Your task to perform on an android device: Search for logitech g502 on target.com, select the first entry, and add it to the cart. Image 0: 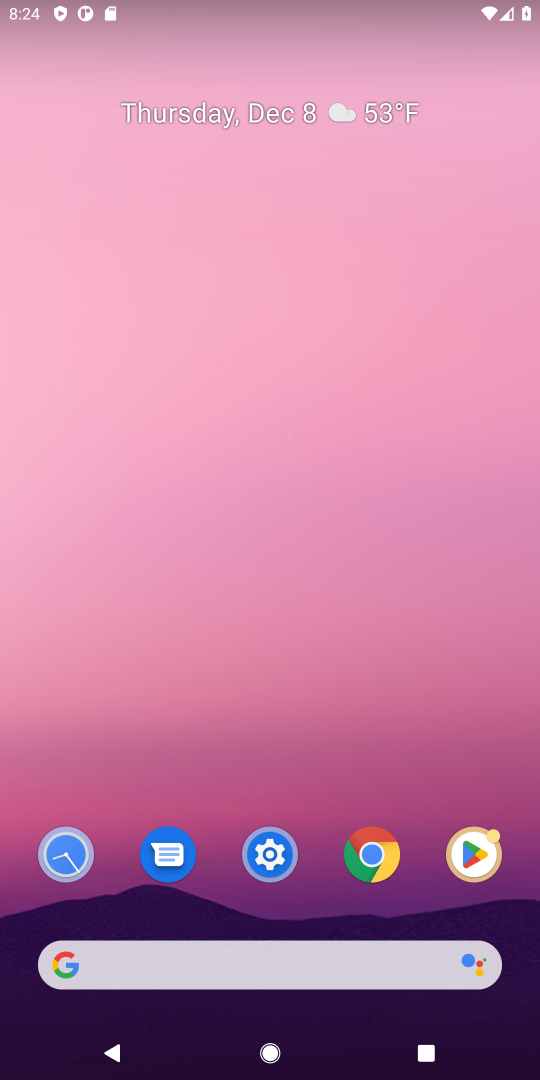
Step 0: press home button
Your task to perform on an android device: Search for logitech g502 on target.com, select the first entry, and add it to the cart. Image 1: 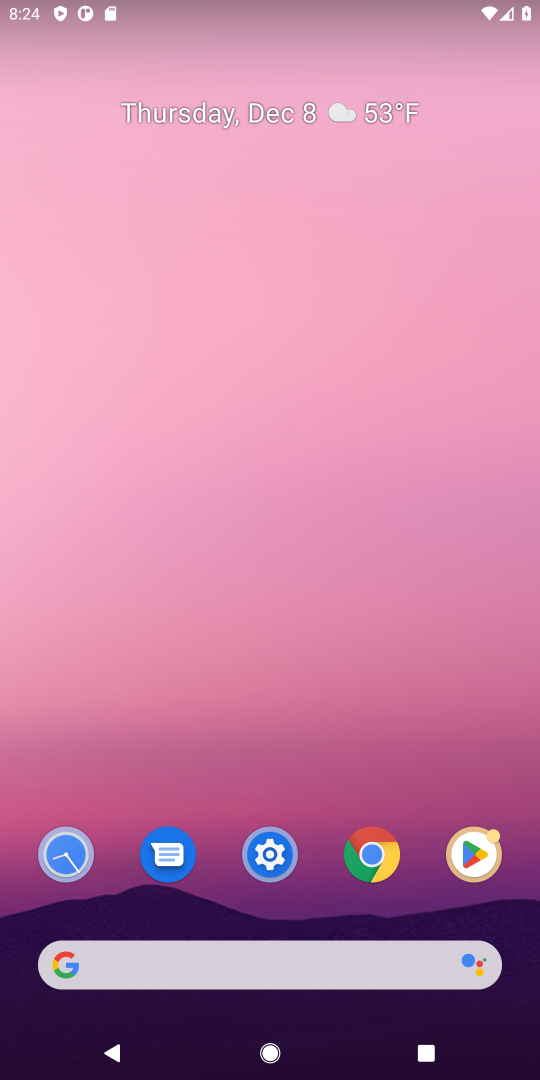
Step 1: click (95, 962)
Your task to perform on an android device: Search for logitech g502 on target.com, select the first entry, and add it to the cart. Image 2: 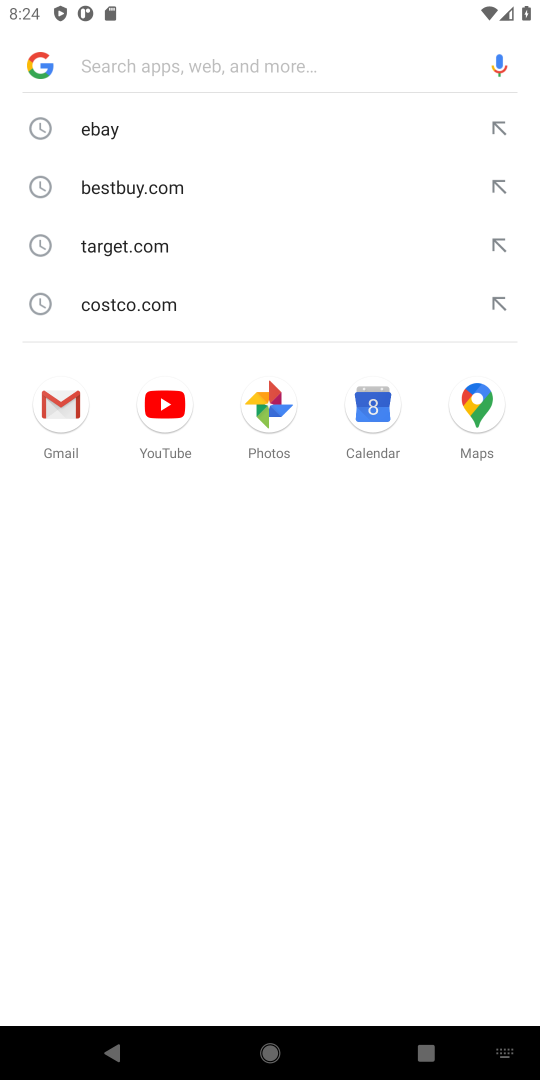
Step 2: press enter
Your task to perform on an android device: Search for logitech g502 on target.com, select the first entry, and add it to the cart. Image 3: 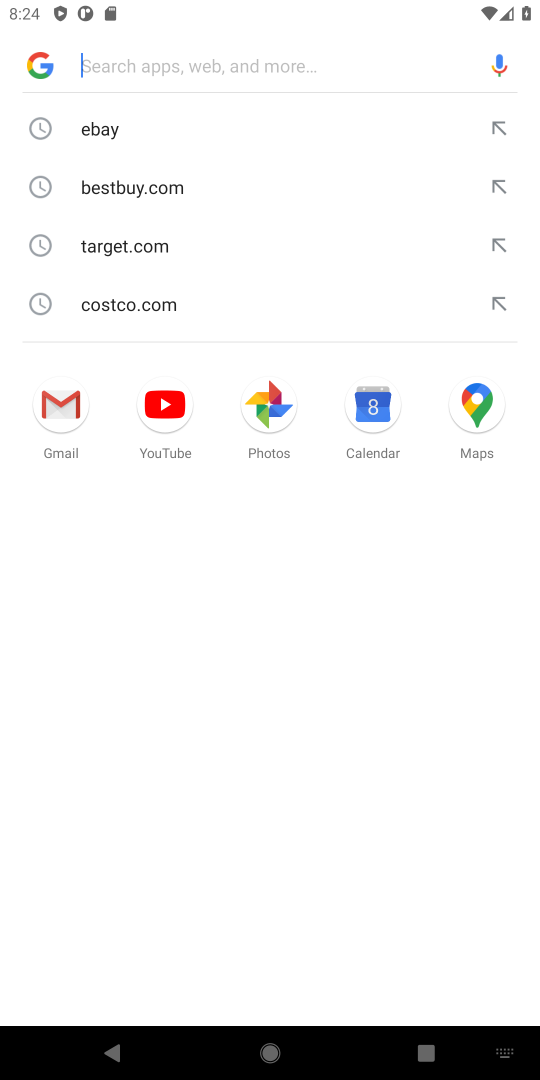
Step 3: type "target.com"
Your task to perform on an android device: Search for logitech g502 on target.com, select the first entry, and add it to the cart. Image 4: 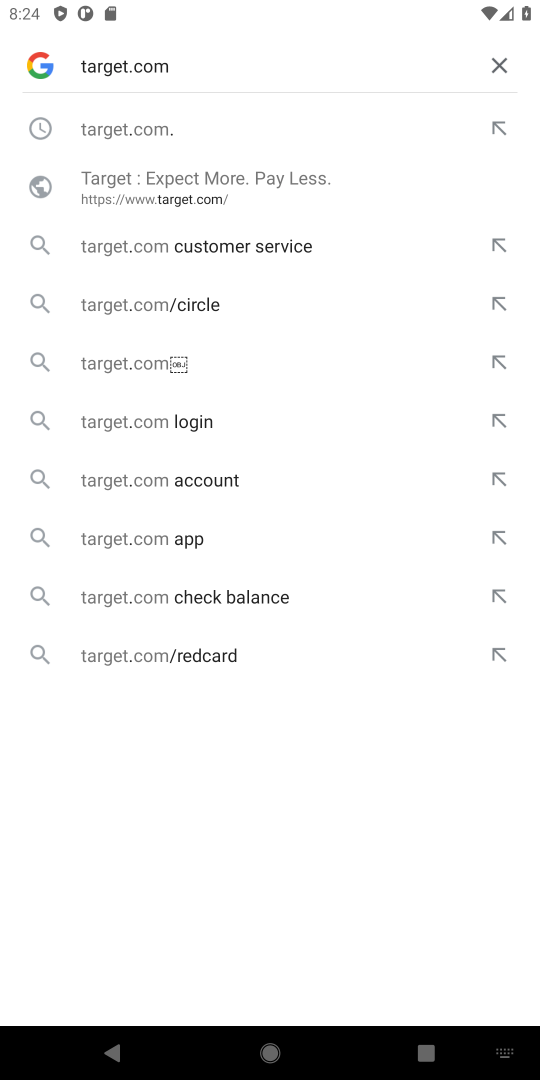
Step 4: press enter
Your task to perform on an android device: Search for logitech g502 on target.com, select the first entry, and add it to the cart. Image 5: 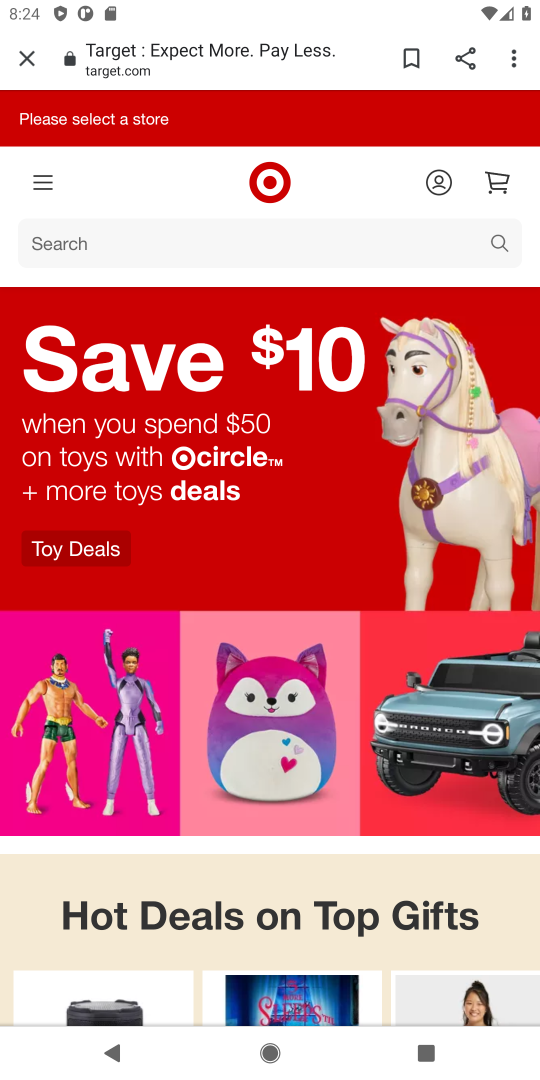
Step 5: click (45, 235)
Your task to perform on an android device: Search for logitech g502 on target.com, select the first entry, and add it to the cart. Image 6: 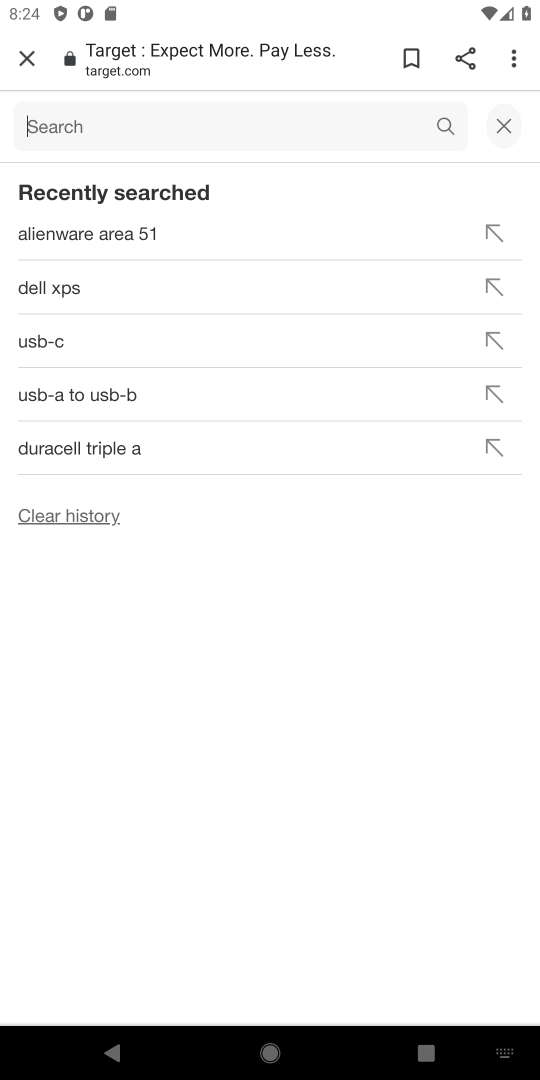
Step 6: type "logitech g502"
Your task to perform on an android device: Search for logitech g502 on target.com, select the first entry, and add it to the cart. Image 7: 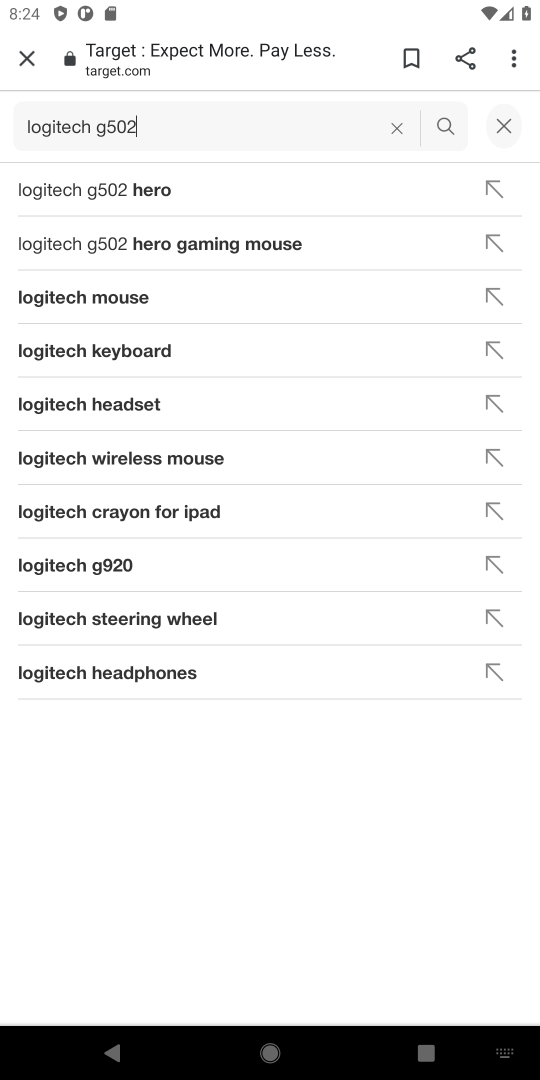
Step 7: press enter
Your task to perform on an android device: Search for logitech g502 on target.com, select the first entry, and add it to the cart. Image 8: 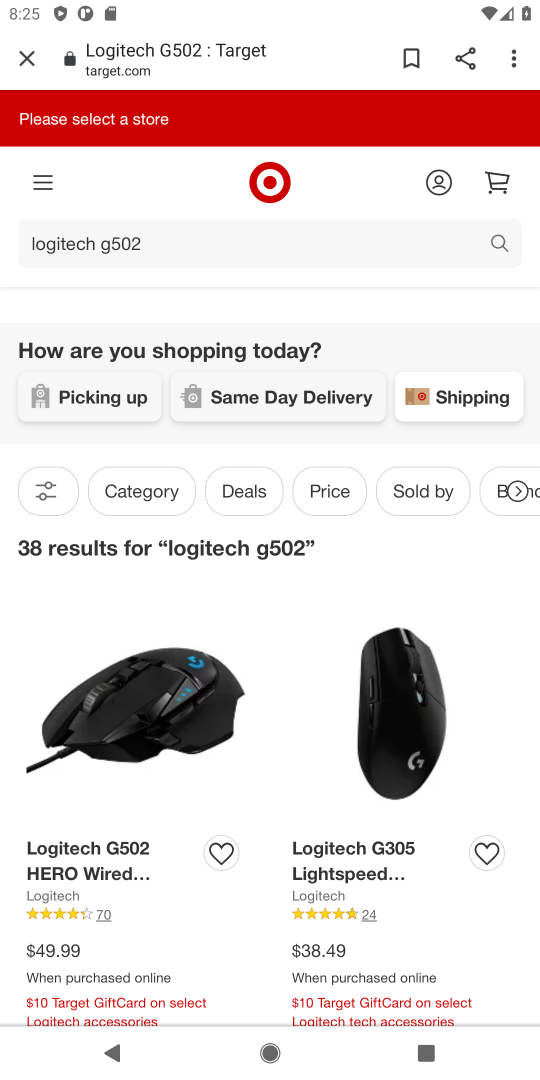
Step 8: click (96, 872)
Your task to perform on an android device: Search for logitech g502 on target.com, select the first entry, and add it to the cart. Image 9: 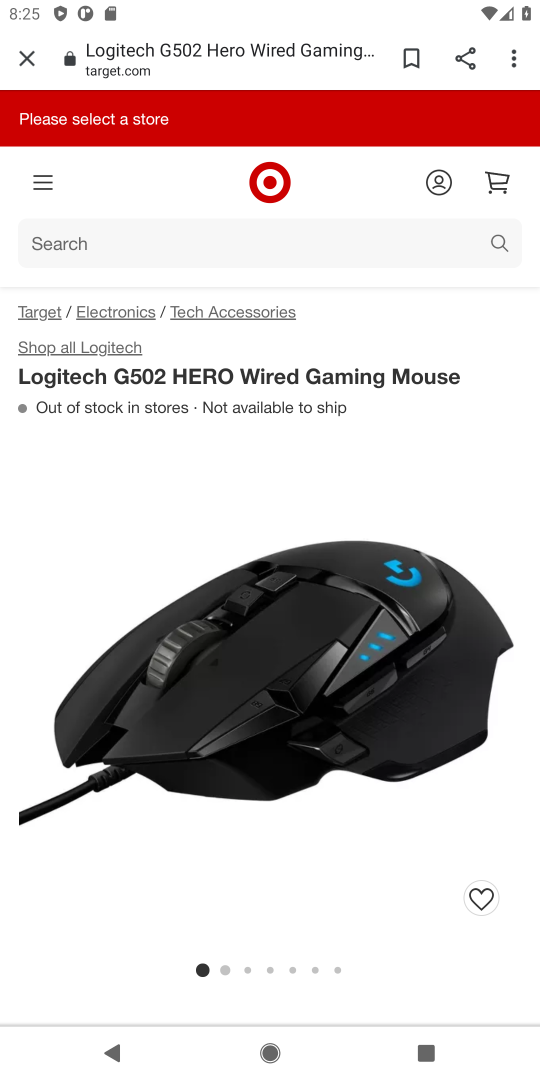
Step 9: drag from (320, 867) to (311, 392)
Your task to perform on an android device: Search for logitech g502 on target.com, select the first entry, and add it to the cart. Image 10: 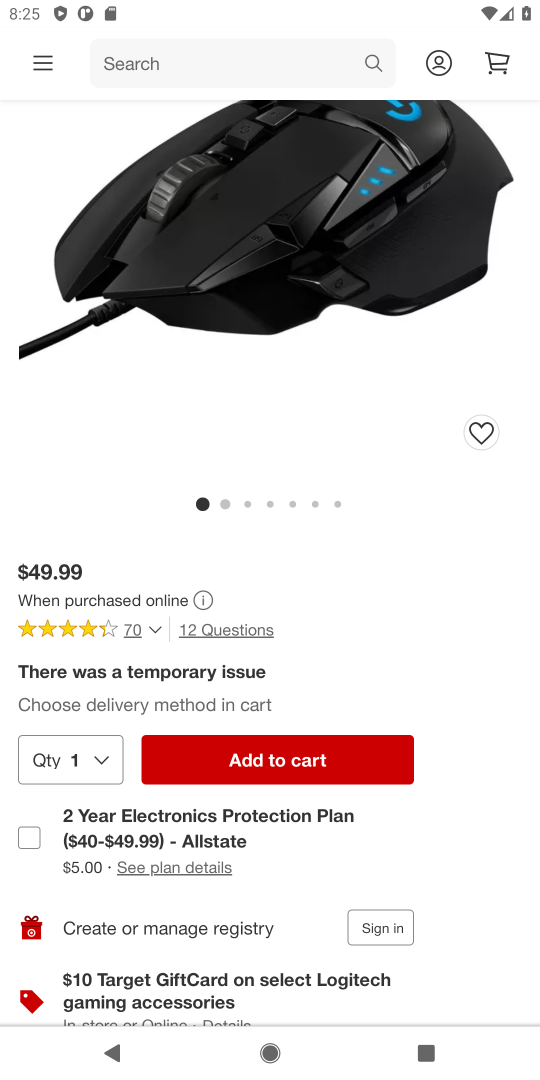
Step 10: click (273, 765)
Your task to perform on an android device: Search for logitech g502 on target.com, select the first entry, and add it to the cart. Image 11: 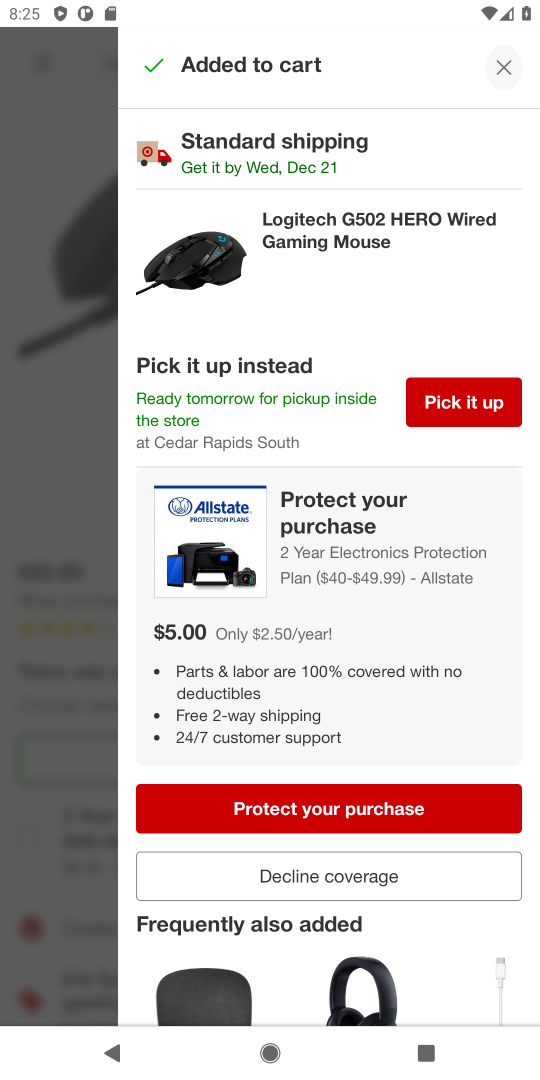
Step 11: click (341, 879)
Your task to perform on an android device: Search for logitech g502 on target.com, select the first entry, and add it to the cart. Image 12: 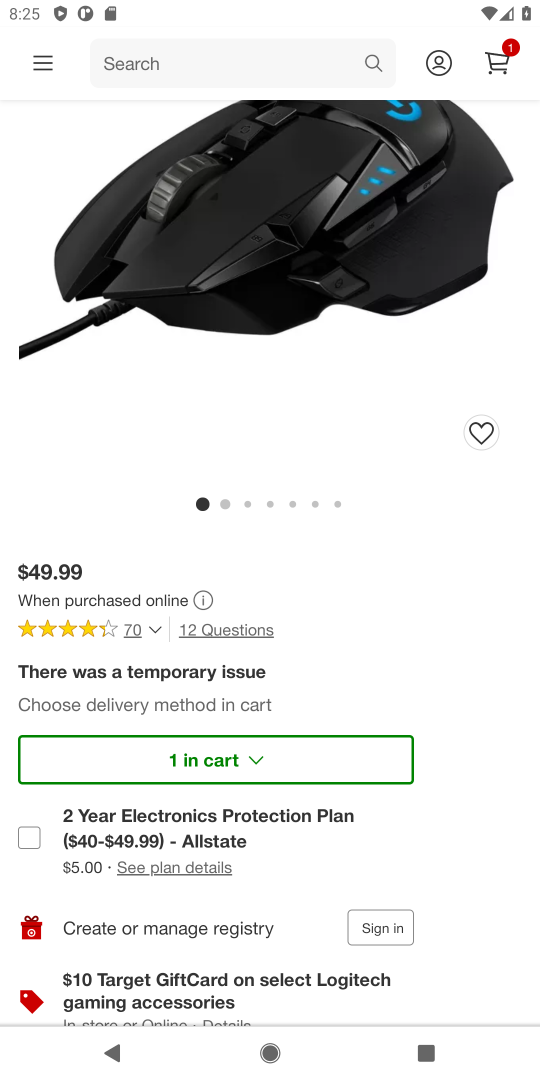
Step 12: task complete